Your task to perform on an android device: check data usage Image 0: 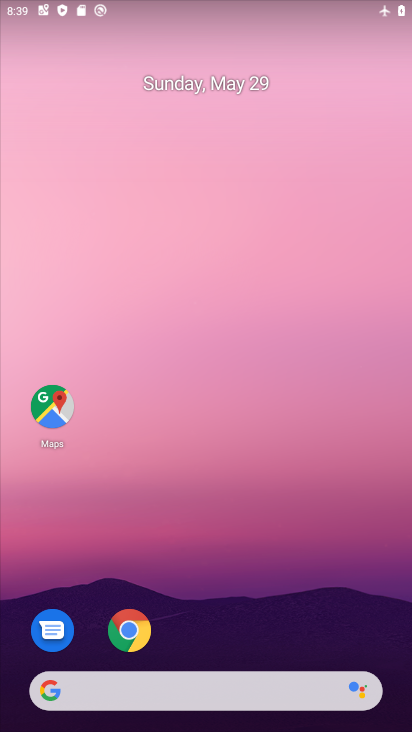
Step 0: drag from (199, 666) to (234, 0)
Your task to perform on an android device: check data usage Image 1: 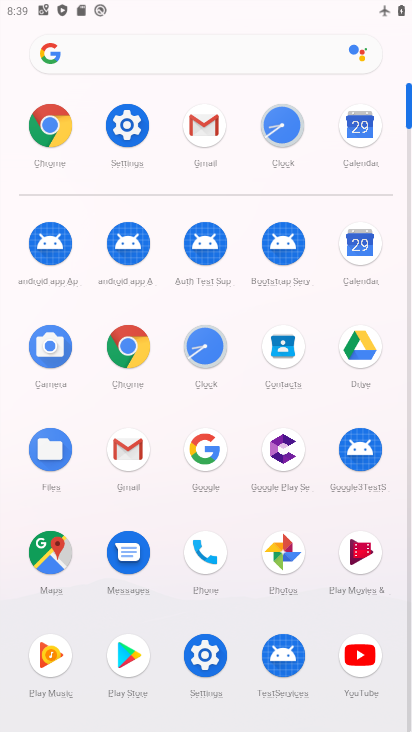
Step 1: click (125, 163)
Your task to perform on an android device: check data usage Image 2: 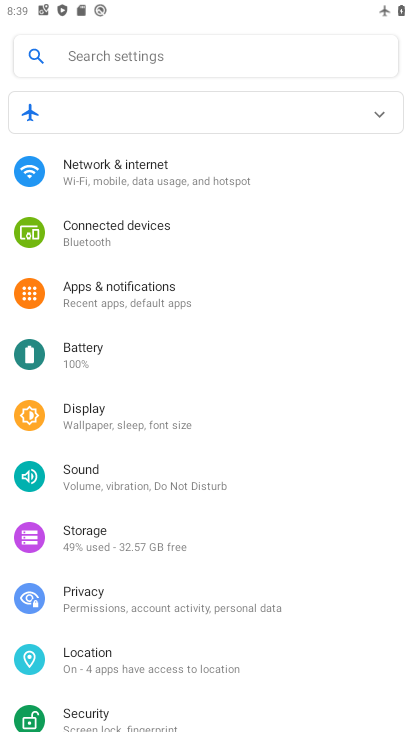
Step 2: click (117, 179)
Your task to perform on an android device: check data usage Image 3: 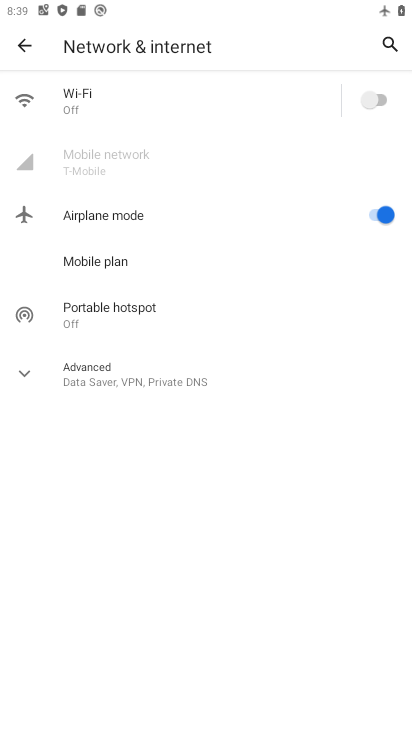
Step 3: task complete